Your task to perform on an android device: Go to settings Image 0: 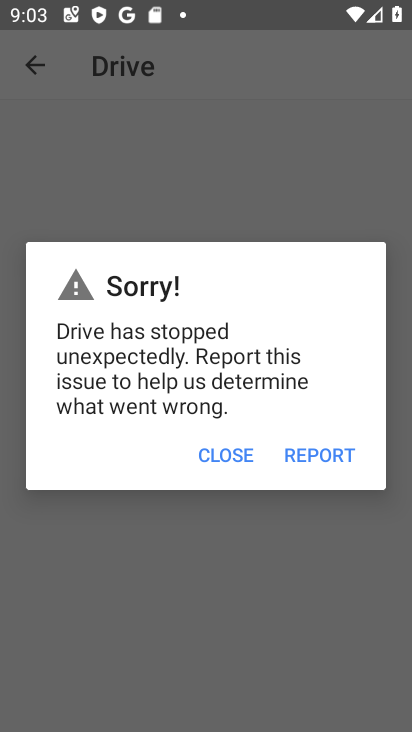
Step 0: press home button
Your task to perform on an android device: Go to settings Image 1: 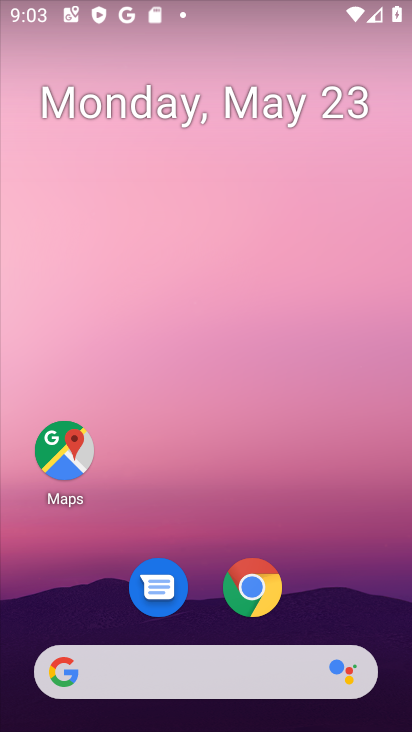
Step 1: drag from (212, 506) to (261, 57)
Your task to perform on an android device: Go to settings Image 2: 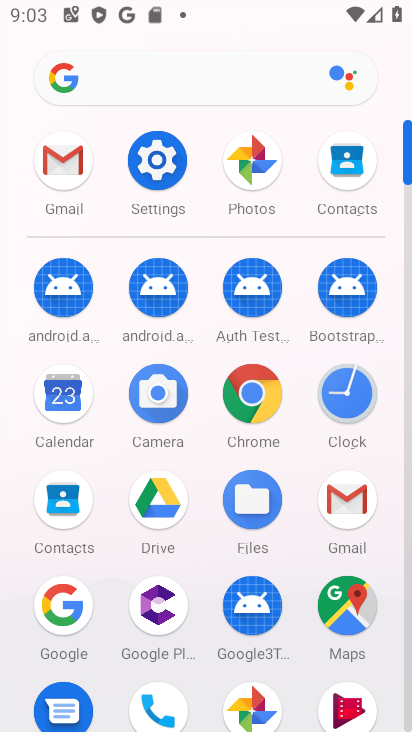
Step 2: click (168, 159)
Your task to perform on an android device: Go to settings Image 3: 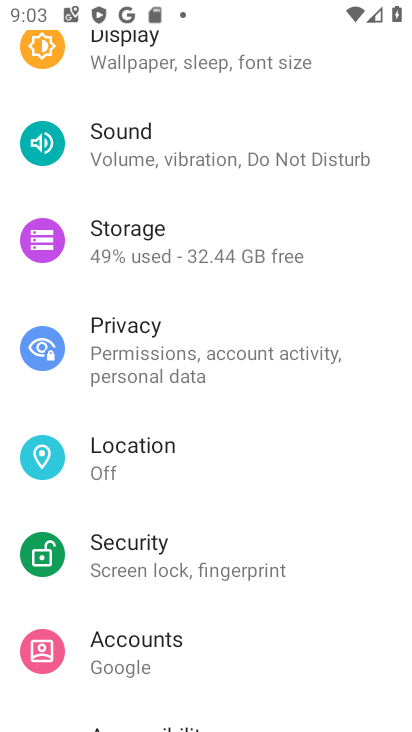
Step 3: task complete